Your task to perform on an android device: Show me popular videos on Youtube Image 0: 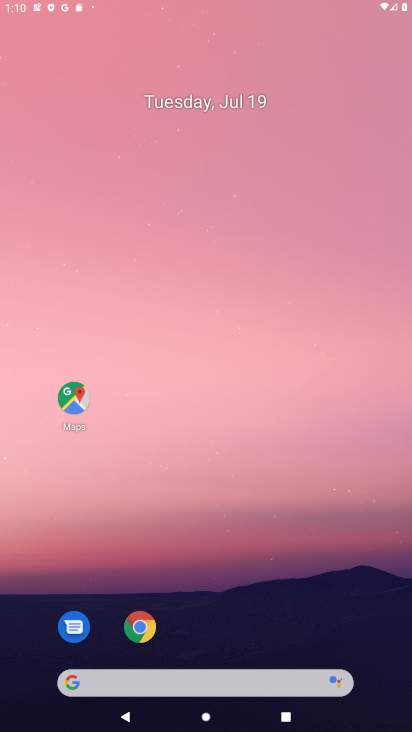
Step 0: click (320, 559)
Your task to perform on an android device: Show me popular videos on Youtube Image 1: 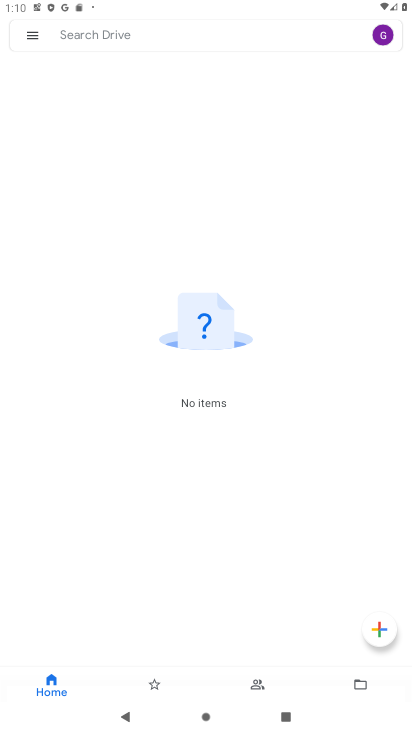
Step 1: press home button
Your task to perform on an android device: Show me popular videos on Youtube Image 2: 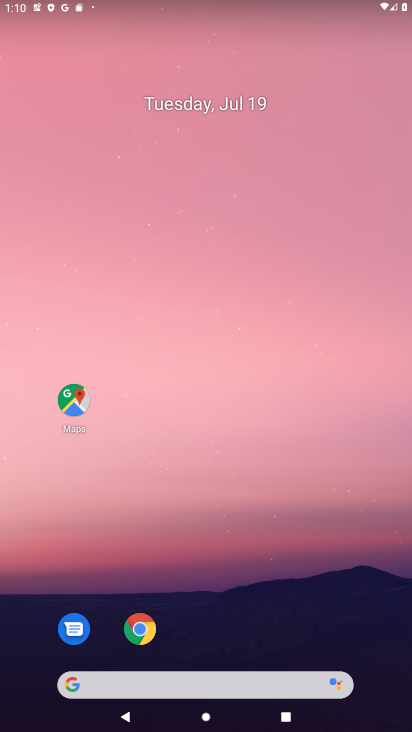
Step 2: drag from (213, 647) to (105, 20)
Your task to perform on an android device: Show me popular videos on Youtube Image 3: 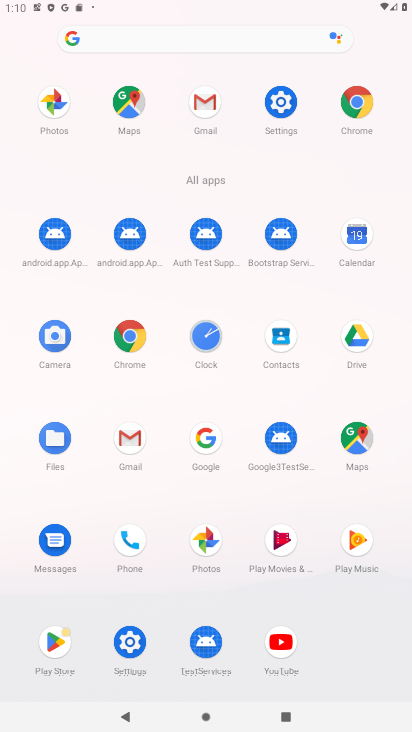
Step 3: click (287, 638)
Your task to perform on an android device: Show me popular videos on Youtube Image 4: 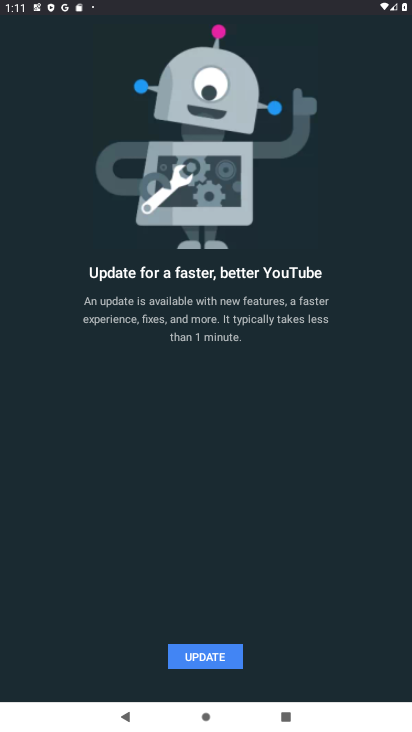
Step 4: click (226, 653)
Your task to perform on an android device: Show me popular videos on Youtube Image 5: 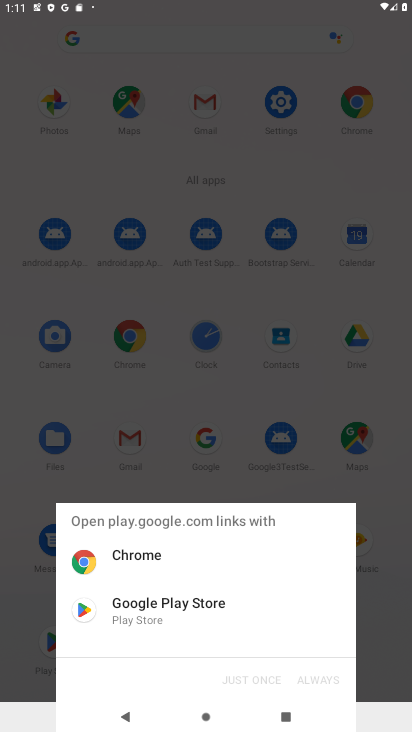
Step 5: click (179, 609)
Your task to perform on an android device: Show me popular videos on Youtube Image 6: 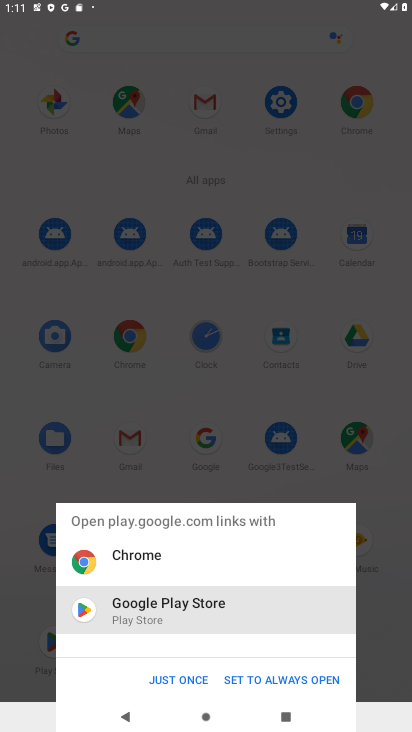
Step 6: click (157, 684)
Your task to perform on an android device: Show me popular videos on Youtube Image 7: 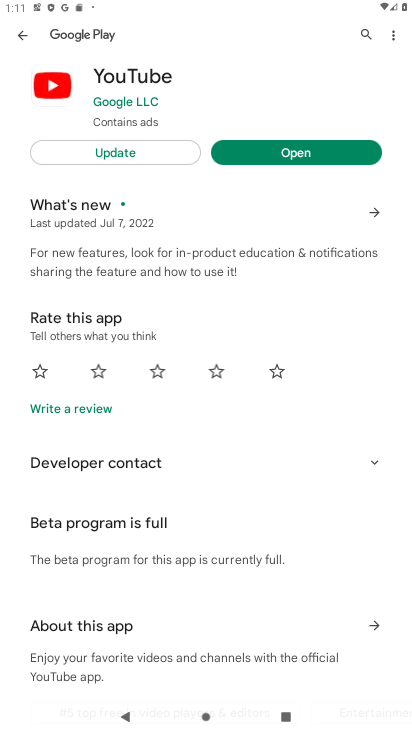
Step 7: click (91, 154)
Your task to perform on an android device: Show me popular videos on Youtube Image 8: 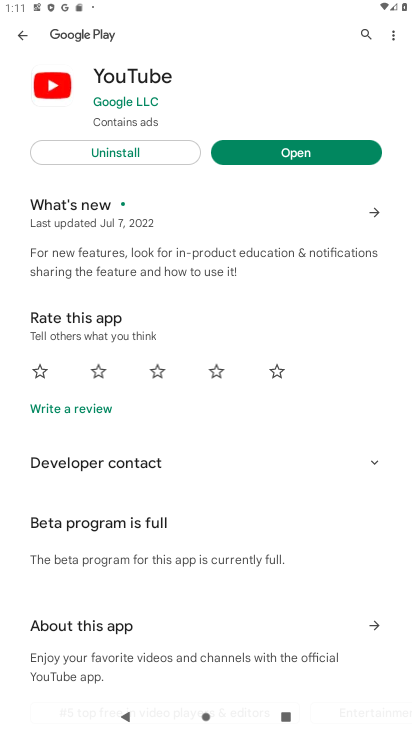
Step 8: click (316, 152)
Your task to perform on an android device: Show me popular videos on Youtube Image 9: 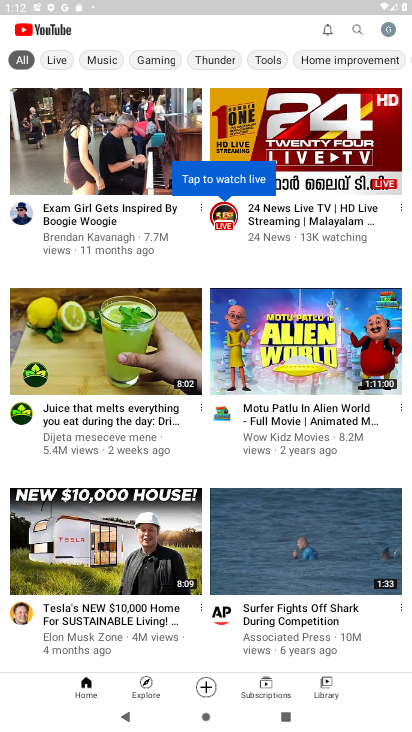
Step 9: click (144, 682)
Your task to perform on an android device: Show me popular videos on Youtube Image 10: 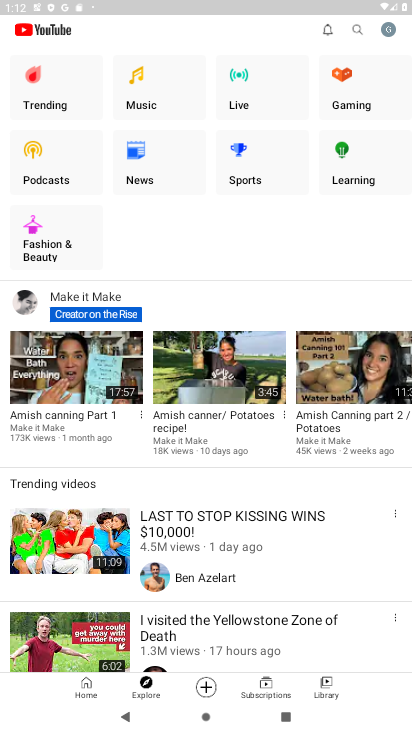
Step 10: click (57, 102)
Your task to perform on an android device: Show me popular videos on Youtube Image 11: 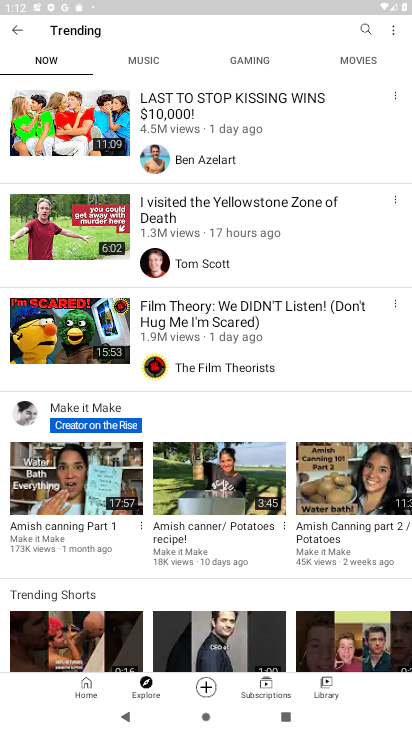
Step 11: task complete